Your task to perform on an android device: Go to Google maps Image 0: 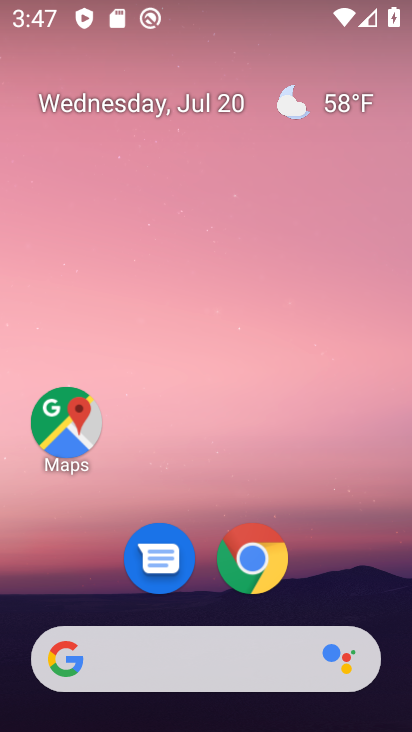
Step 0: click (73, 434)
Your task to perform on an android device: Go to Google maps Image 1: 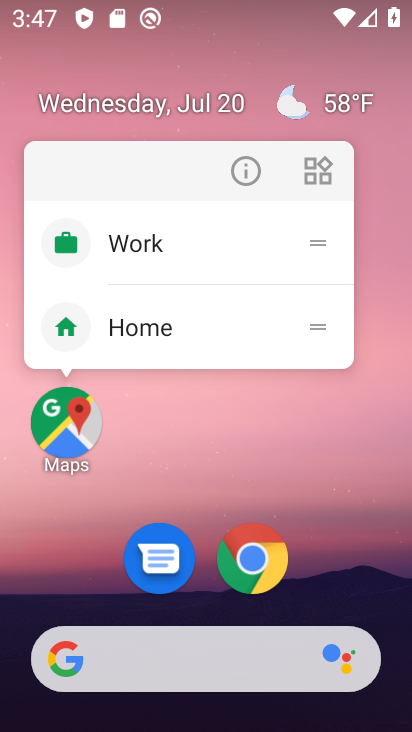
Step 1: click (54, 409)
Your task to perform on an android device: Go to Google maps Image 2: 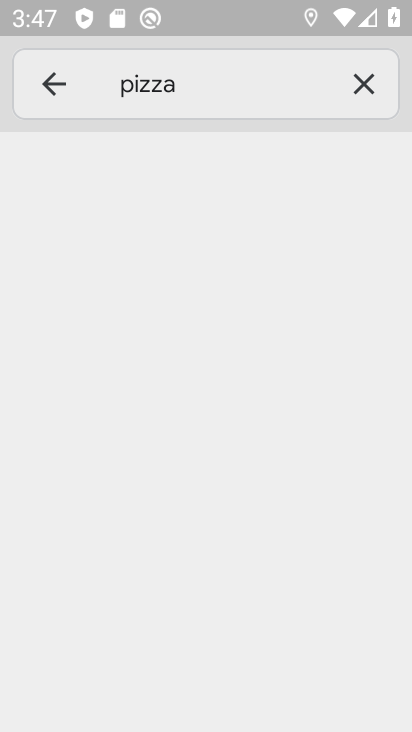
Step 2: task complete